Your task to perform on an android device: turn off airplane mode Image 0: 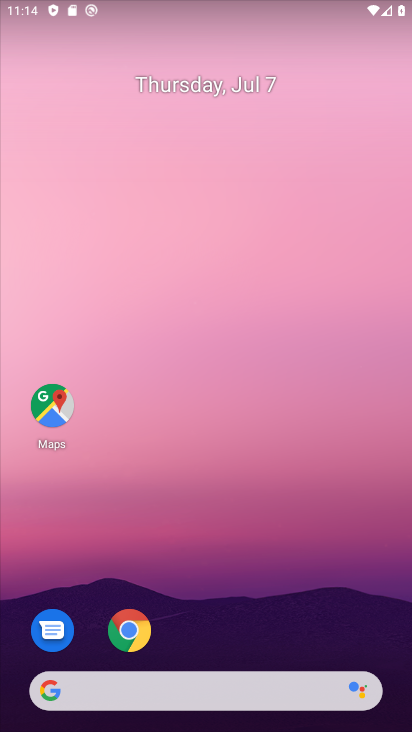
Step 0: drag from (372, 602) to (308, 148)
Your task to perform on an android device: turn off airplane mode Image 1: 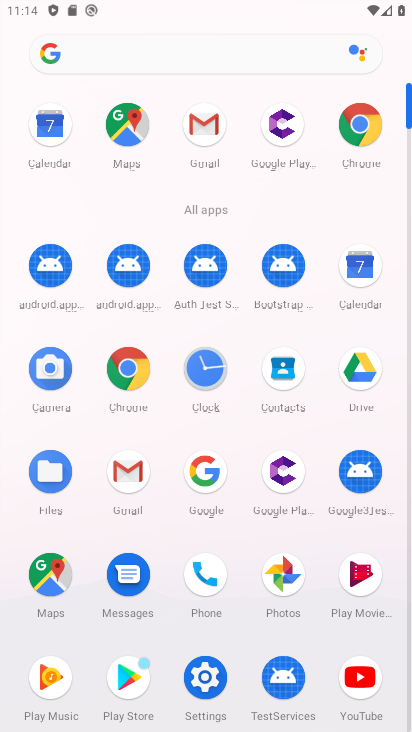
Step 1: click (199, 671)
Your task to perform on an android device: turn off airplane mode Image 2: 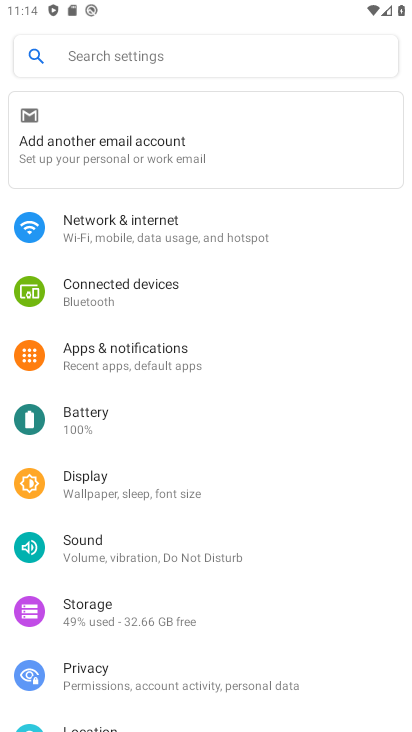
Step 2: click (131, 214)
Your task to perform on an android device: turn off airplane mode Image 3: 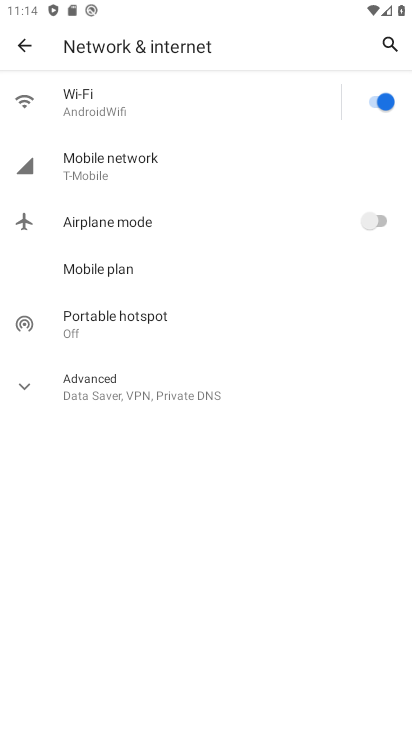
Step 3: task complete